Your task to perform on an android device: open chrome privacy settings Image 0: 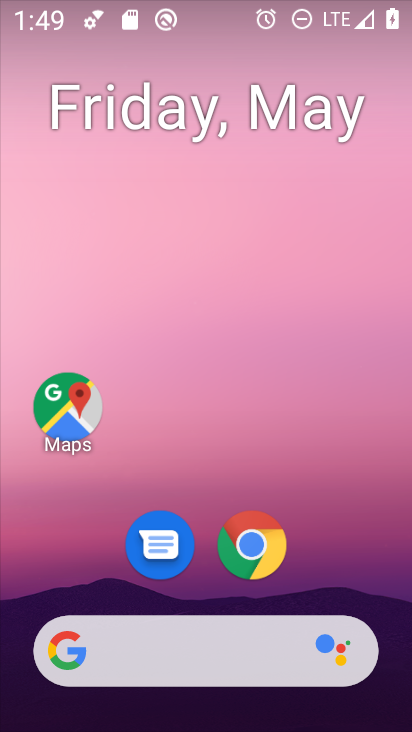
Step 0: click (258, 535)
Your task to perform on an android device: open chrome privacy settings Image 1: 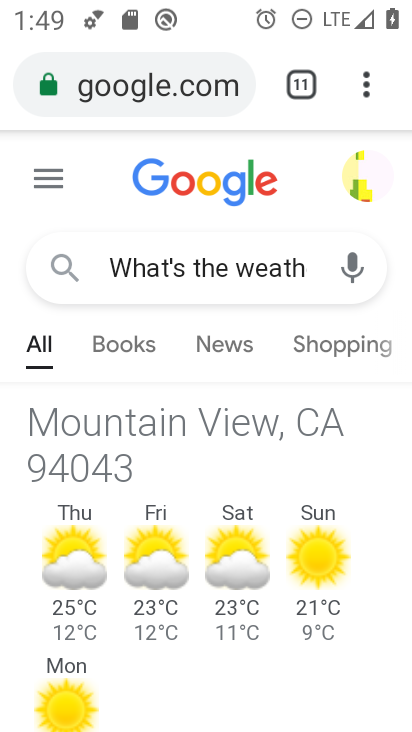
Step 1: click (379, 77)
Your task to perform on an android device: open chrome privacy settings Image 2: 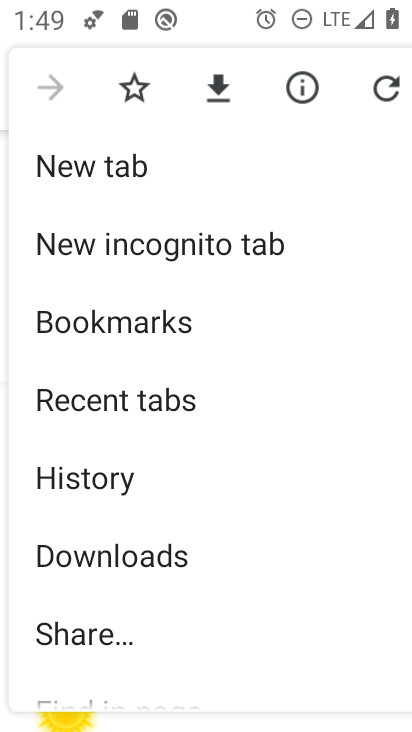
Step 2: drag from (240, 608) to (235, 169)
Your task to perform on an android device: open chrome privacy settings Image 3: 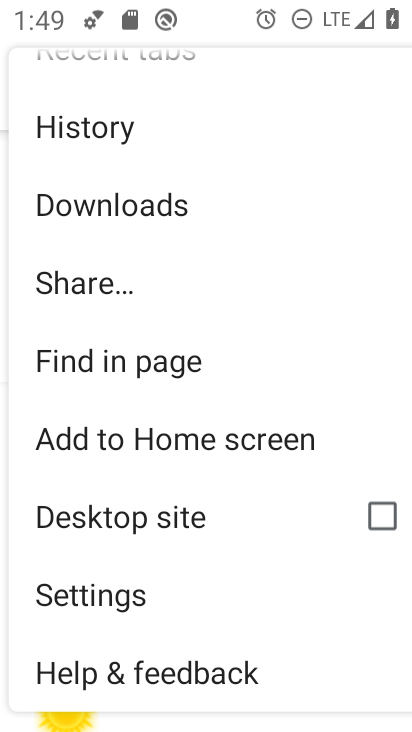
Step 3: click (152, 614)
Your task to perform on an android device: open chrome privacy settings Image 4: 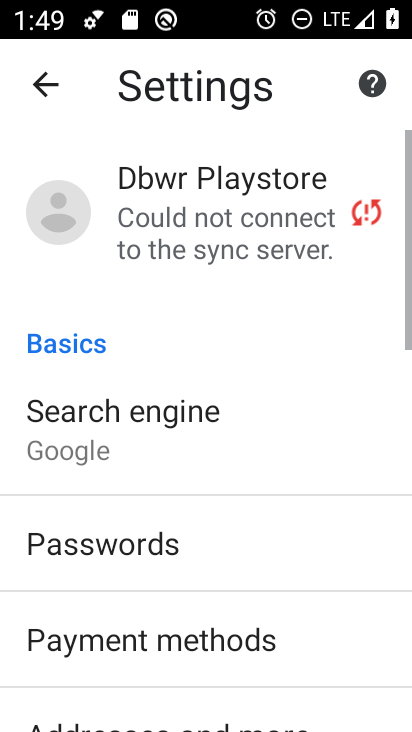
Step 4: drag from (205, 615) to (211, 203)
Your task to perform on an android device: open chrome privacy settings Image 5: 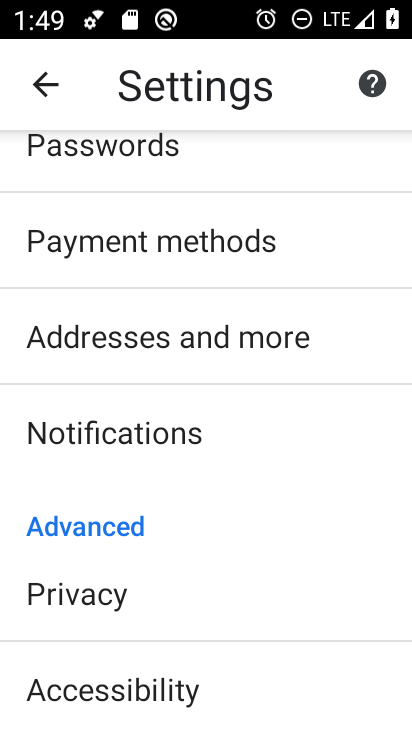
Step 5: click (141, 591)
Your task to perform on an android device: open chrome privacy settings Image 6: 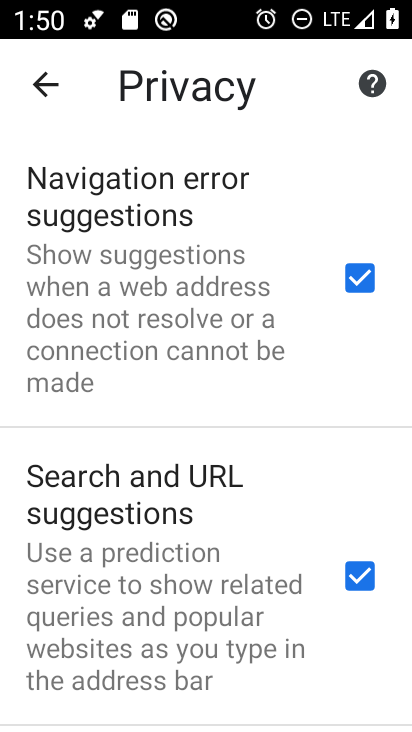
Step 6: task complete